Your task to perform on an android device: Go to CNN.com Image 0: 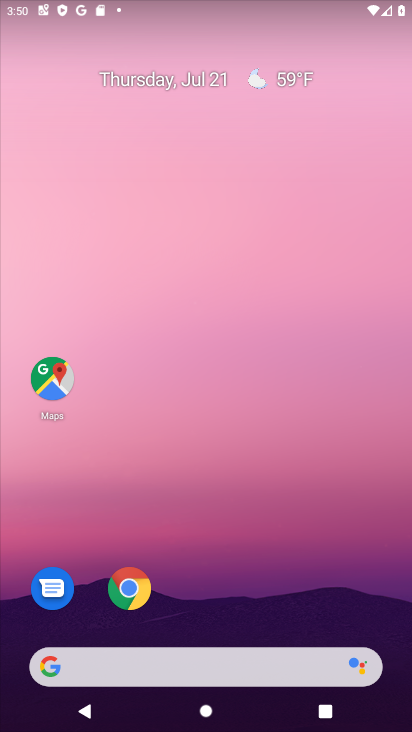
Step 0: click (129, 591)
Your task to perform on an android device: Go to CNN.com Image 1: 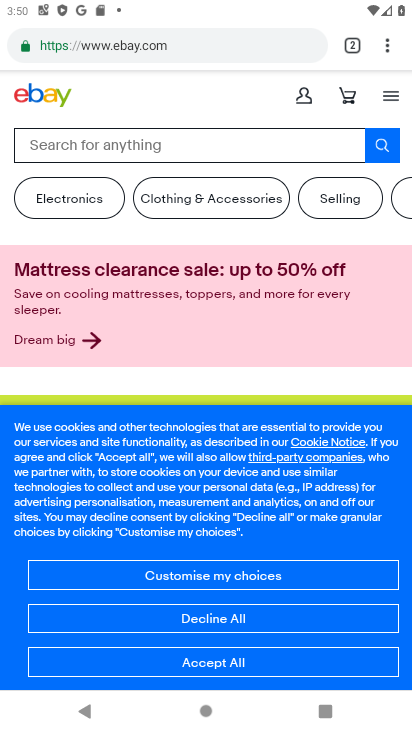
Step 1: click (389, 50)
Your task to perform on an android device: Go to CNN.com Image 2: 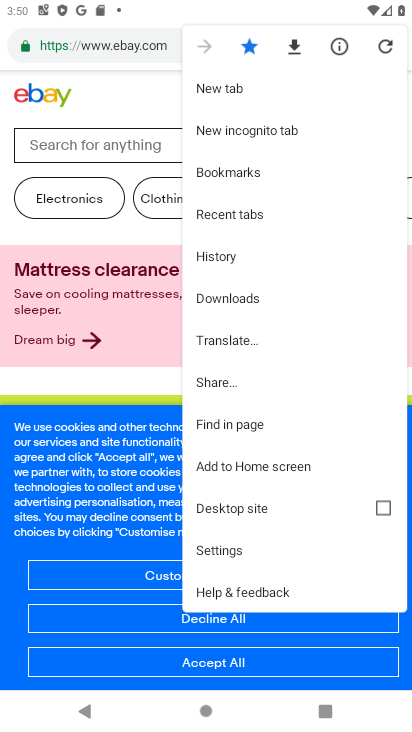
Step 2: click (218, 89)
Your task to perform on an android device: Go to CNN.com Image 3: 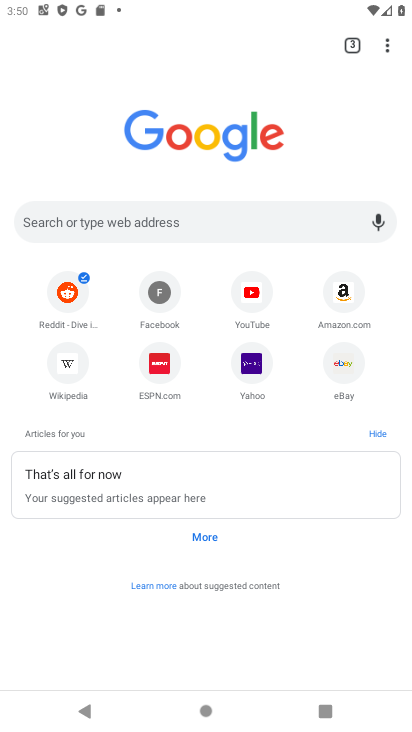
Step 3: click (205, 219)
Your task to perform on an android device: Go to CNN.com Image 4: 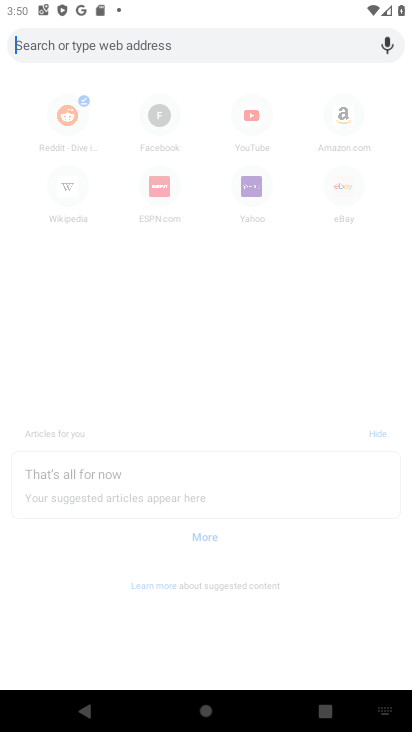
Step 4: type "CNN.com"
Your task to perform on an android device: Go to CNN.com Image 5: 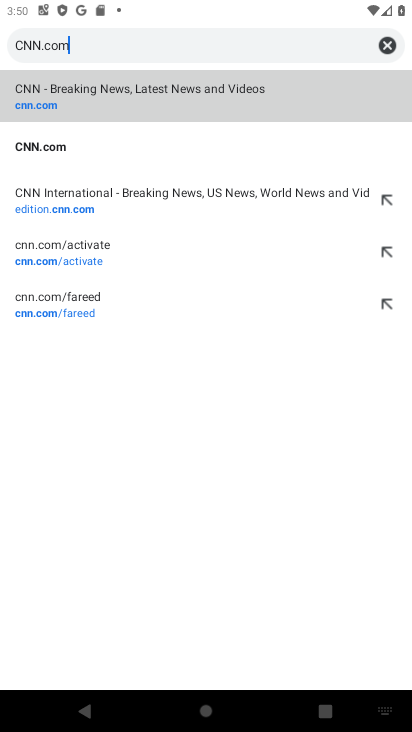
Step 5: type ""
Your task to perform on an android device: Go to CNN.com Image 6: 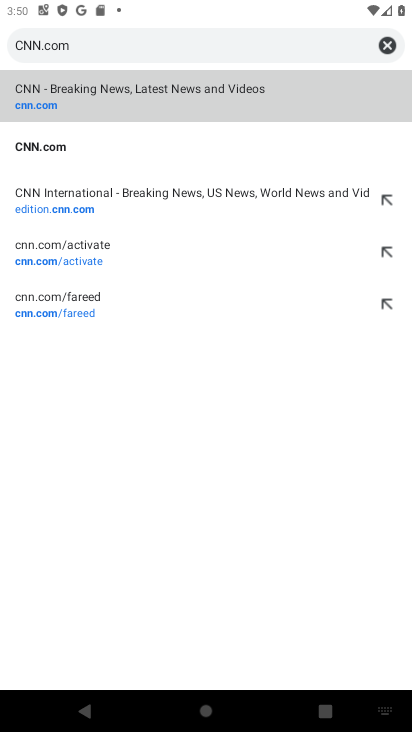
Step 6: click (48, 97)
Your task to perform on an android device: Go to CNN.com Image 7: 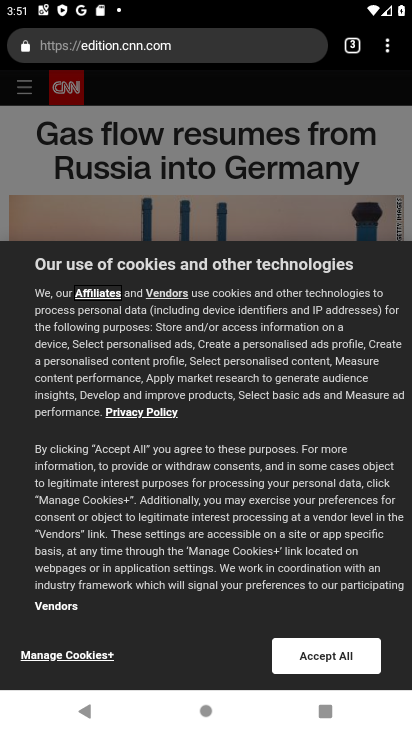
Step 7: task complete